Your task to perform on an android device: Go to Yahoo.com Image 0: 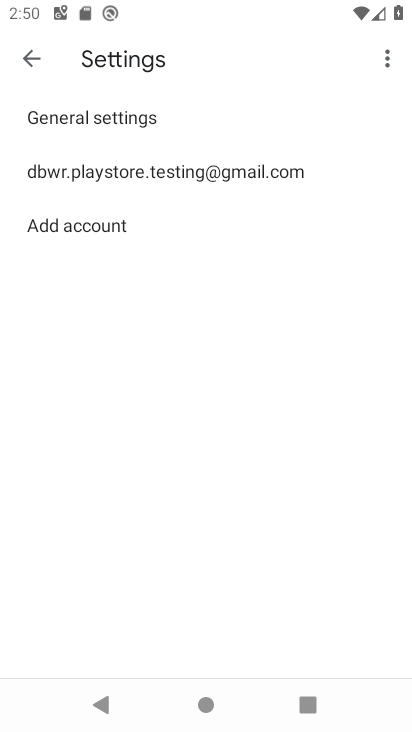
Step 0: click (23, 54)
Your task to perform on an android device: Go to Yahoo.com Image 1: 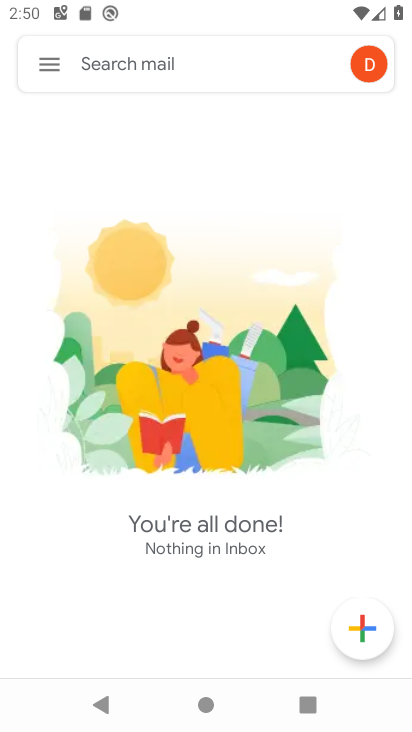
Step 1: press back button
Your task to perform on an android device: Go to Yahoo.com Image 2: 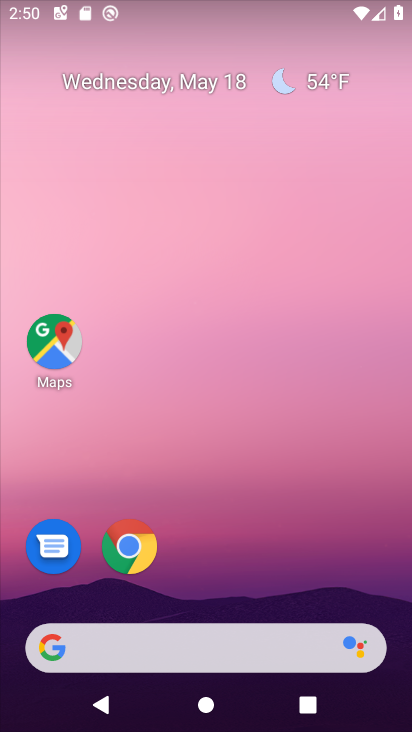
Step 2: drag from (270, 689) to (89, 108)
Your task to perform on an android device: Go to Yahoo.com Image 3: 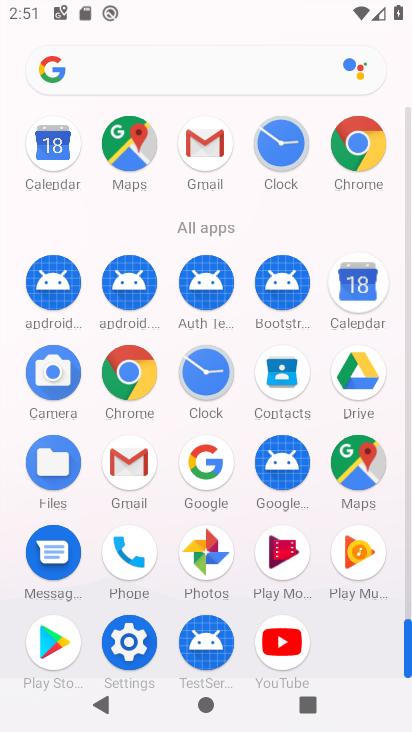
Step 3: click (365, 150)
Your task to perform on an android device: Go to Yahoo.com Image 4: 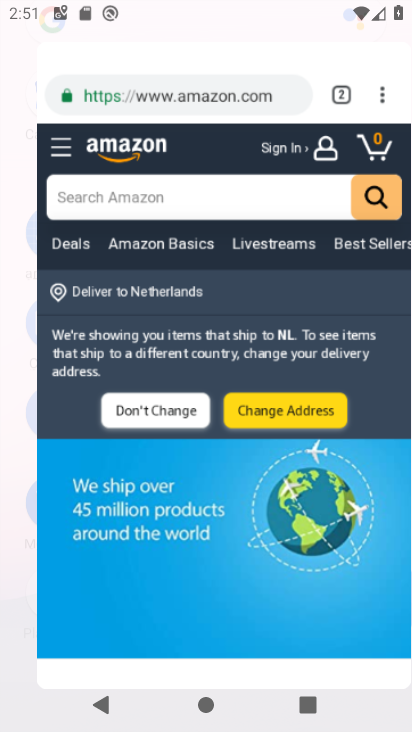
Step 4: click (366, 149)
Your task to perform on an android device: Go to Yahoo.com Image 5: 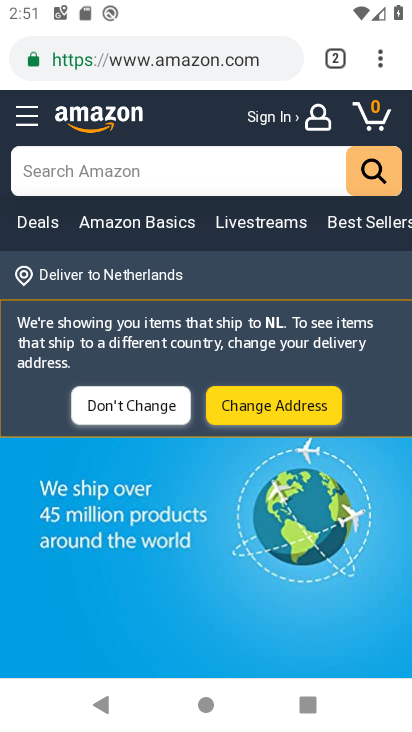
Step 5: drag from (378, 50) to (157, 108)
Your task to perform on an android device: Go to Yahoo.com Image 6: 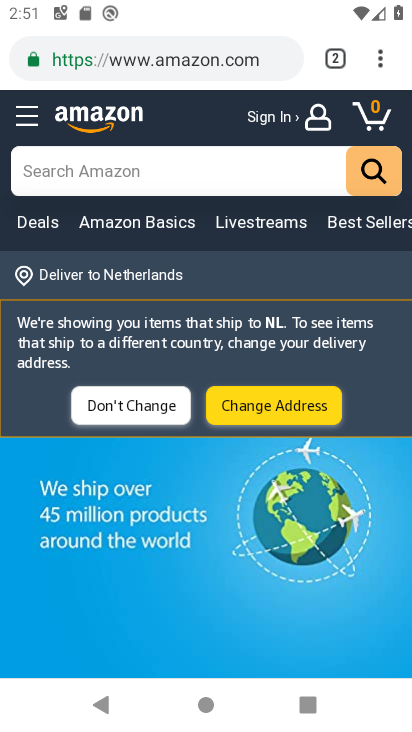
Step 6: click (157, 108)
Your task to perform on an android device: Go to Yahoo.com Image 7: 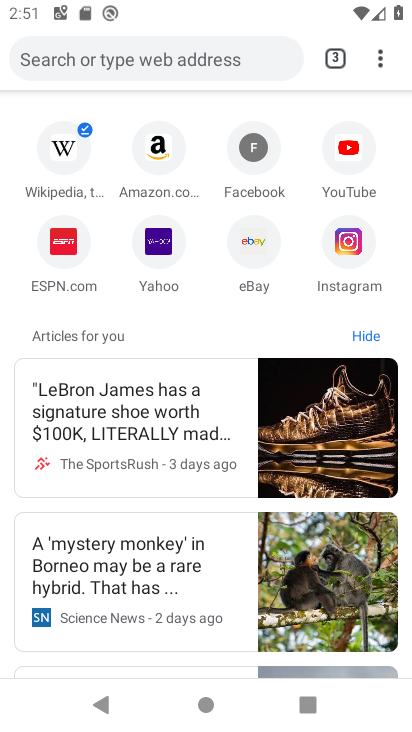
Step 7: click (149, 251)
Your task to perform on an android device: Go to Yahoo.com Image 8: 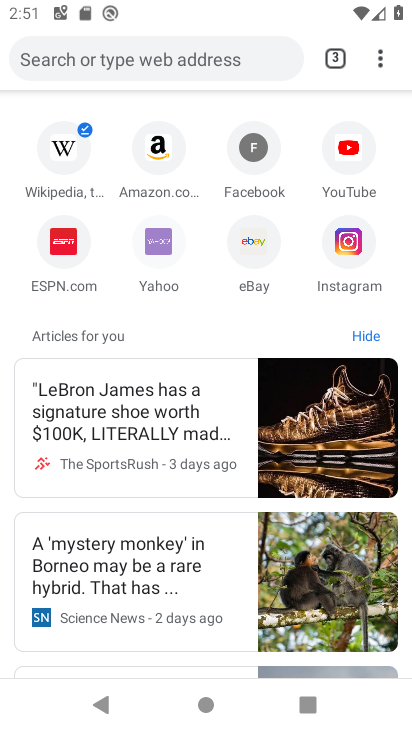
Step 8: click (149, 251)
Your task to perform on an android device: Go to Yahoo.com Image 9: 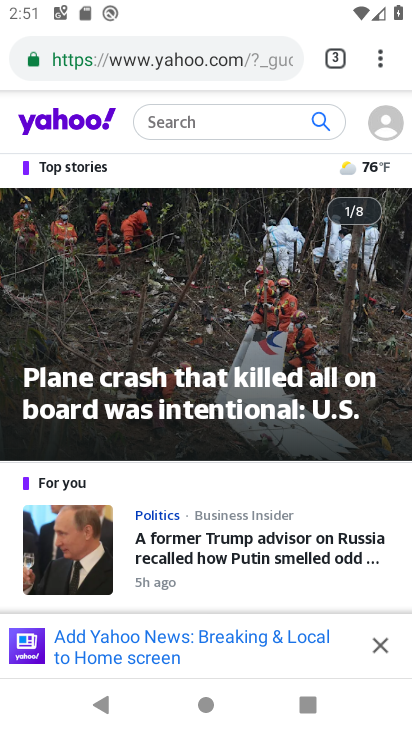
Step 9: task complete